Your task to perform on an android device: refresh tabs in the chrome app Image 0: 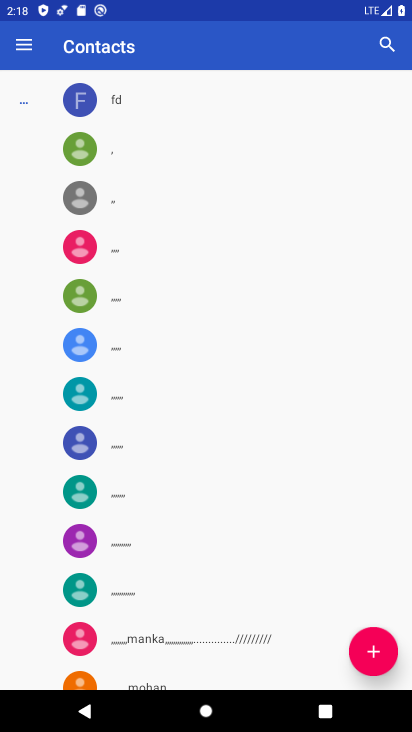
Step 0: press home button
Your task to perform on an android device: refresh tabs in the chrome app Image 1: 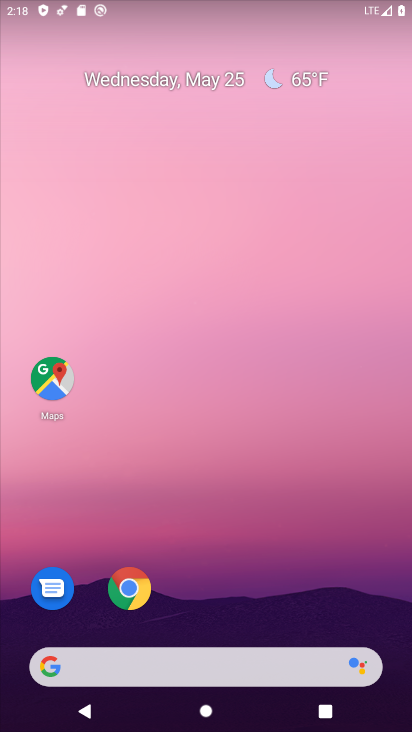
Step 1: click (131, 587)
Your task to perform on an android device: refresh tabs in the chrome app Image 2: 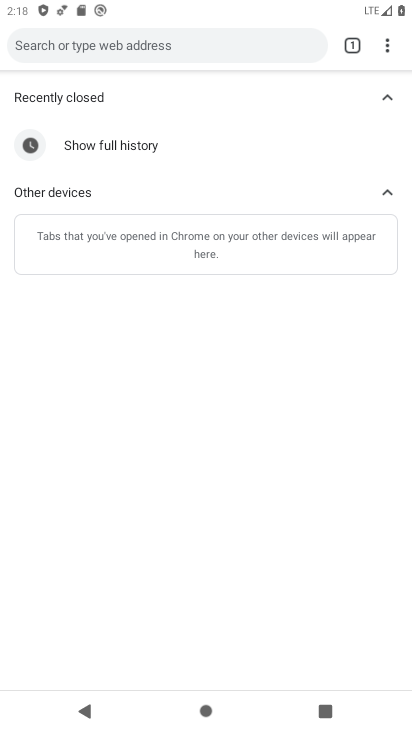
Step 2: click (392, 42)
Your task to perform on an android device: refresh tabs in the chrome app Image 3: 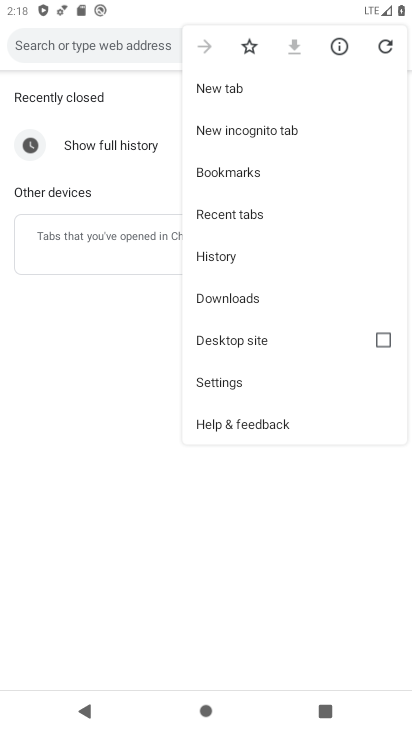
Step 3: click (382, 49)
Your task to perform on an android device: refresh tabs in the chrome app Image 4: 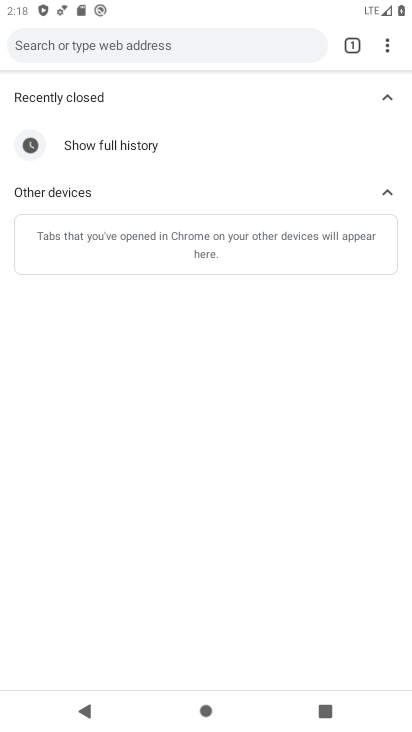
Step 4: click (389, 43)
Your task to perform on an android device: refresh tabs in the chrome app Image 5: 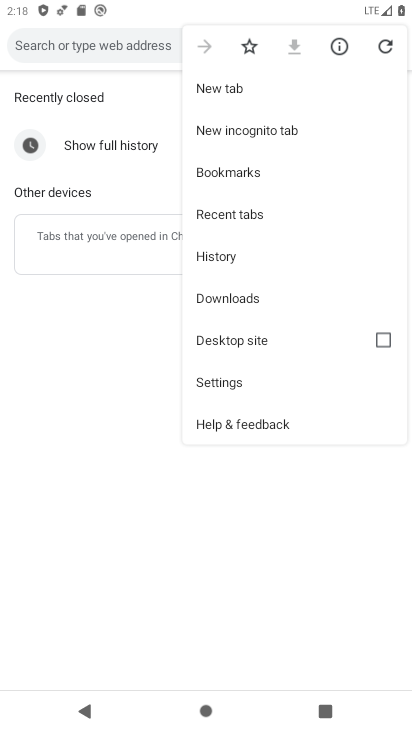
Step 5: click (386, 48)
Your task to perform on an android device: refresh tabs in the chrome app Image 6: 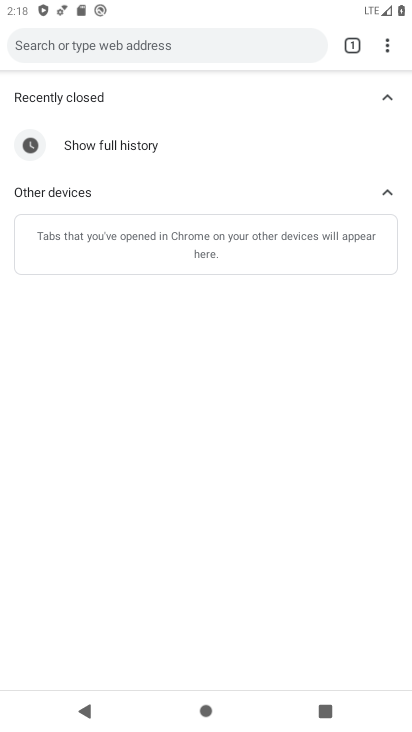
Step 6: task complete